Your task to perform on an android device: Open Google Image 0: 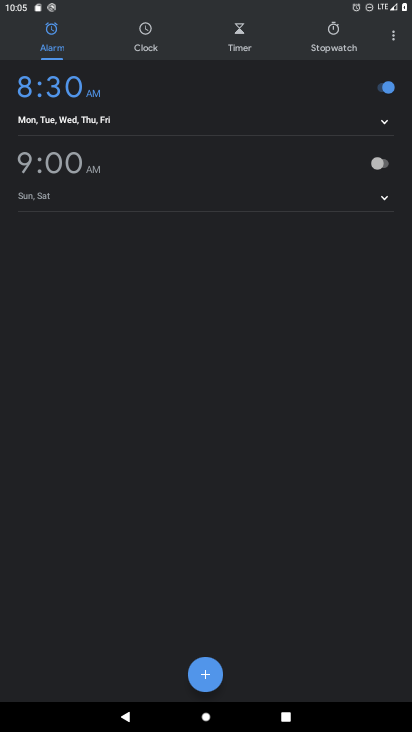
Step 0: press home button
Your task to perform on an android device: Open Google Image 1: 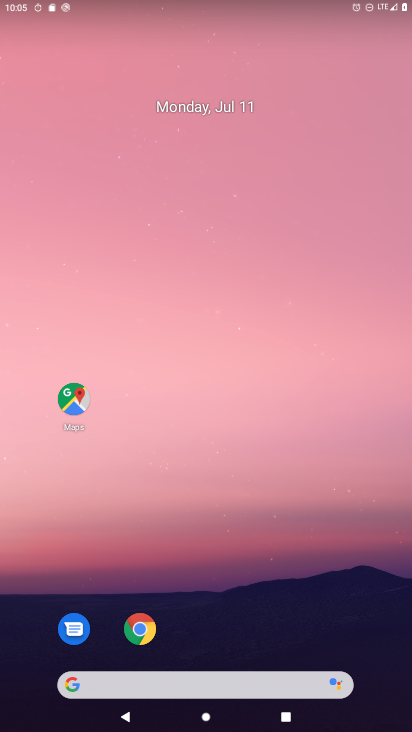
Step 1: click (155, 690)
Your task to perform on an android device: Open Google Image 2: 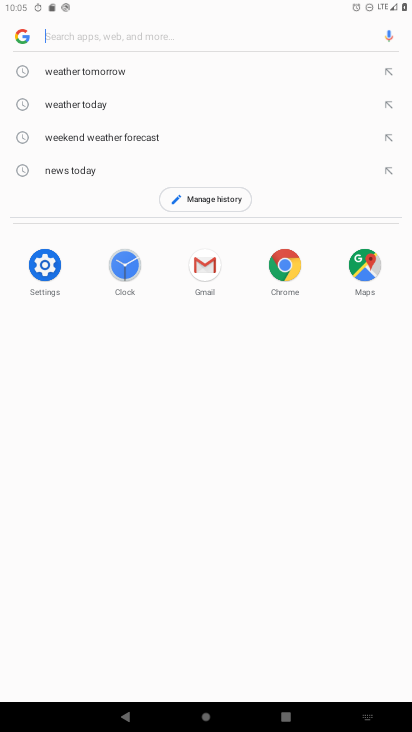
Step 2: task complete